Your task to perform on an android device: remove spam from my inbox in the gmail app Image 0: 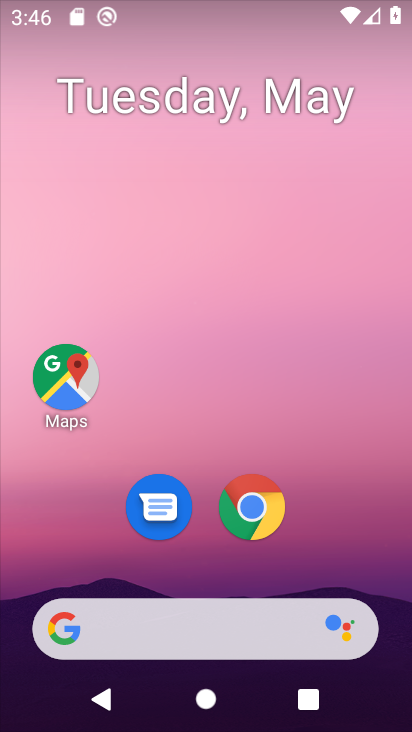
Step 0: drag from (302, 490) to (288, 95)
Your task to perform on an android device: remove spam from my inbox in the gmail app Image 1: 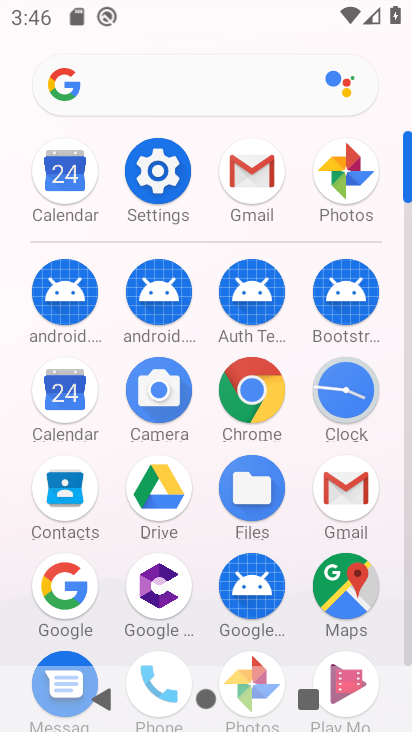
Step 1: click (335, 487)
Your task to perform on an android device: remove spam from my inbox in the gmail app Image 2: 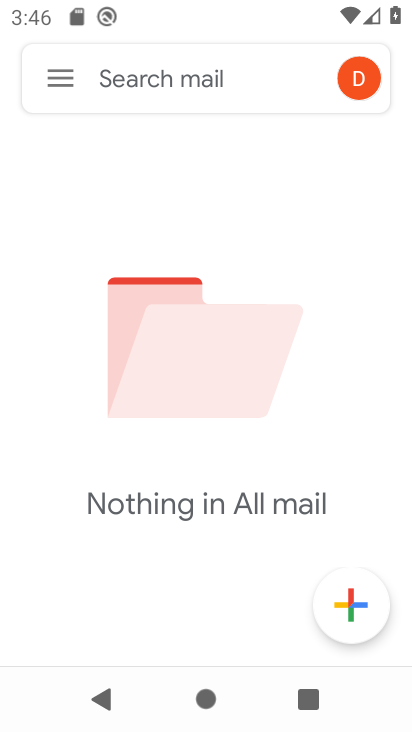
Step 2: click (64, 71)
Your task to perform on an android device: remove spam from my inbox in the gmail app Image 3: 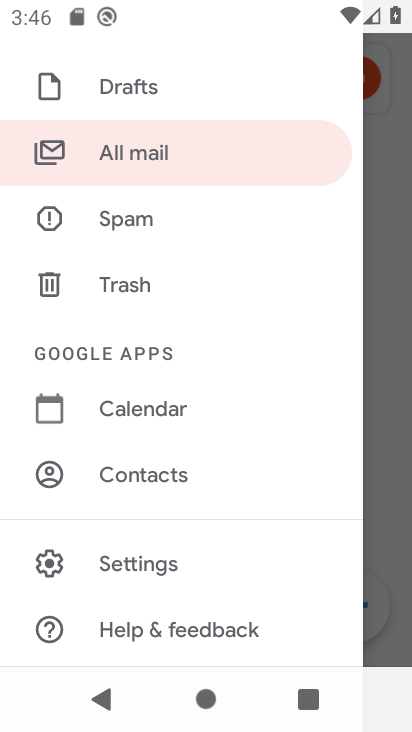
Step 3: click (142, 226)
Your task to perform on an android device: remove spam from my inbox in the gmail app Image 4: 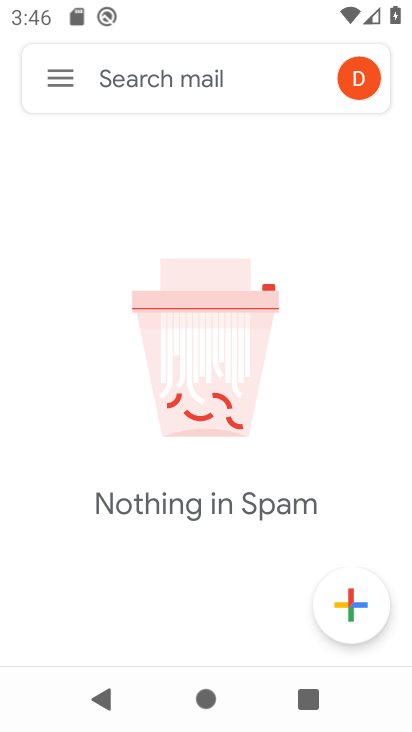
Step 4: task complete